Your task to perform on an android device: uninstall "Google Pay: Save, Pay, Manage" Image 0: 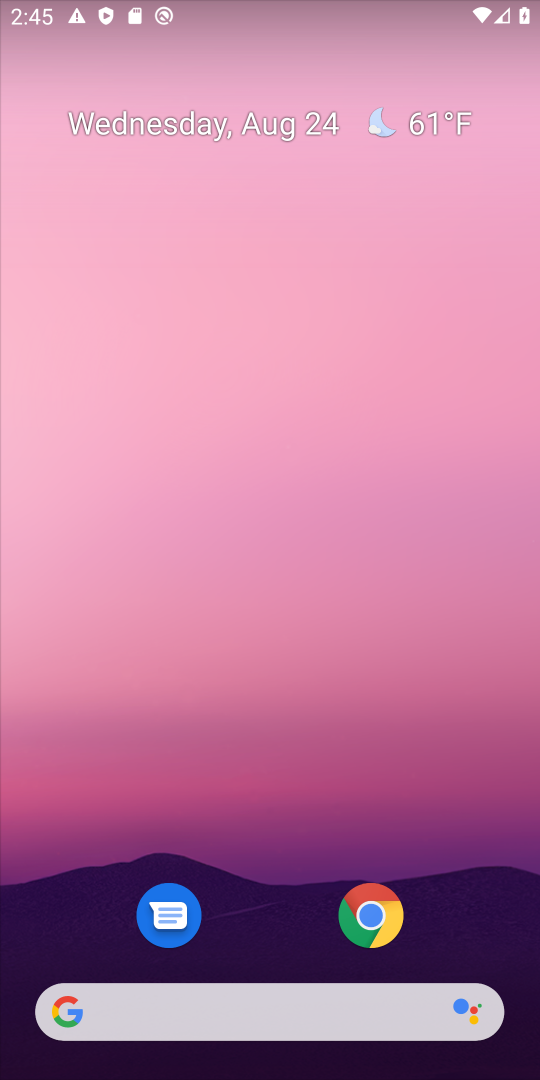
Step 0: drag from (215, 760) to (160, 225)
Your task to perform on an android device: uninstall "Google Pay: Save, Pay, Manage" Image 1: 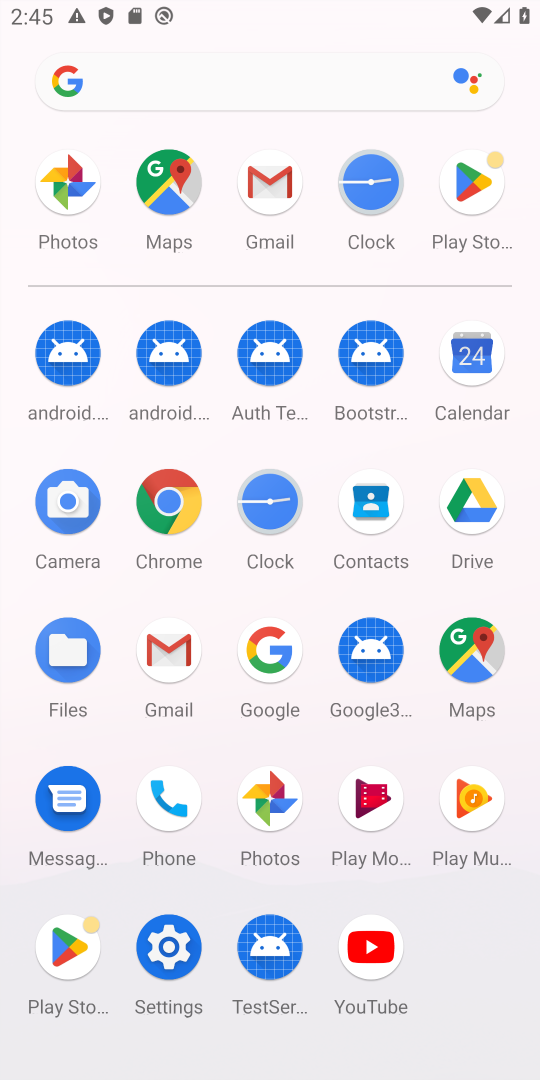
Step 1: click (460, 184)
Your task to perform on an android device: uninstall "Google Pay: Save, Pay, Manage" Image 2: 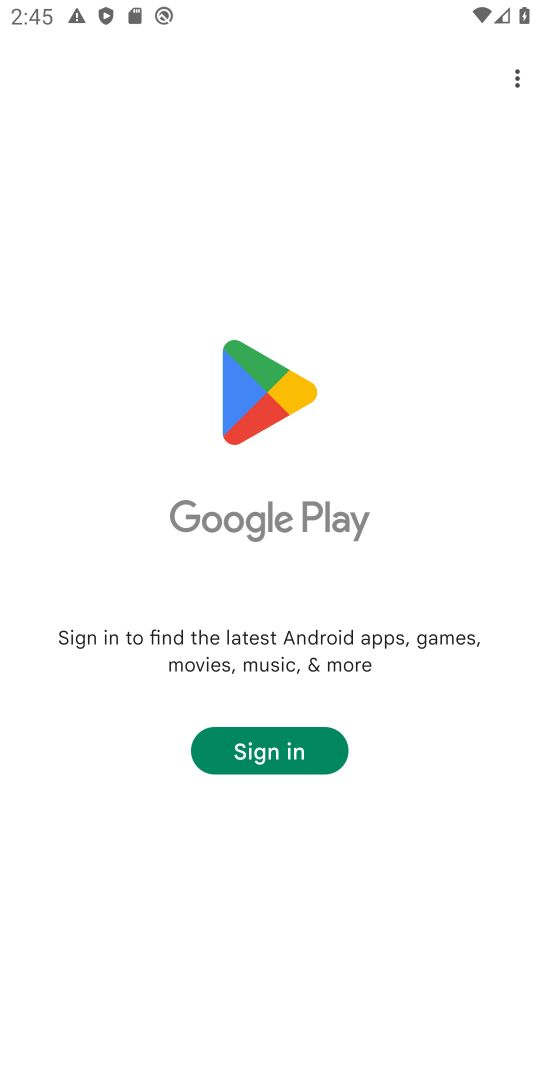
Step 2: task complete